Your task to perform on an android device: Open the stopwatch Image 0: 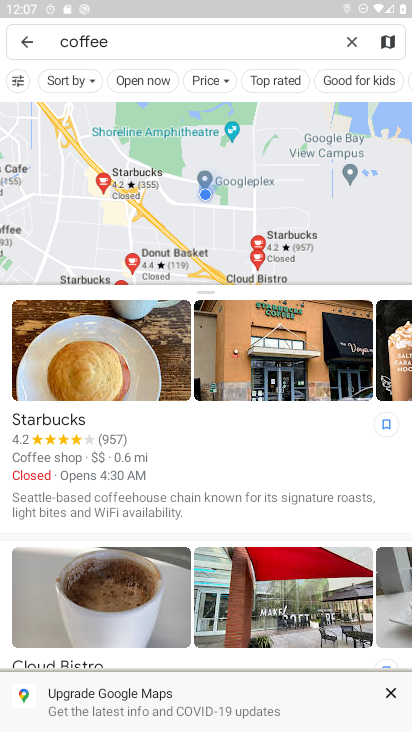
Step 0: press home button
Your task to perform on an android device: Open the stopwatch Image 1: 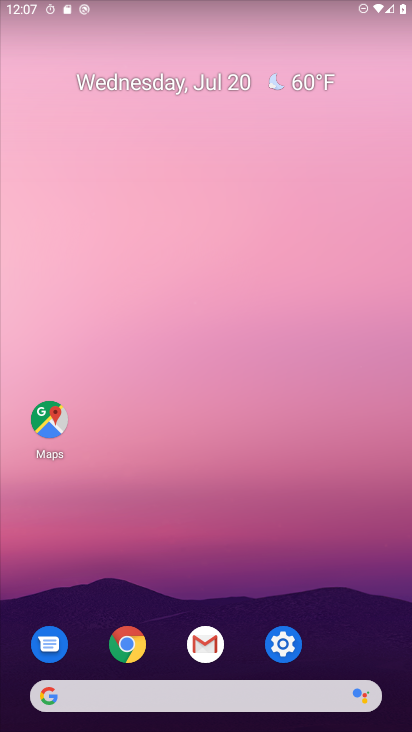
Step 1: drag from (286, 700) to (390, 217)
Your task to perform on an android device: Open the stopwatch Image 2: 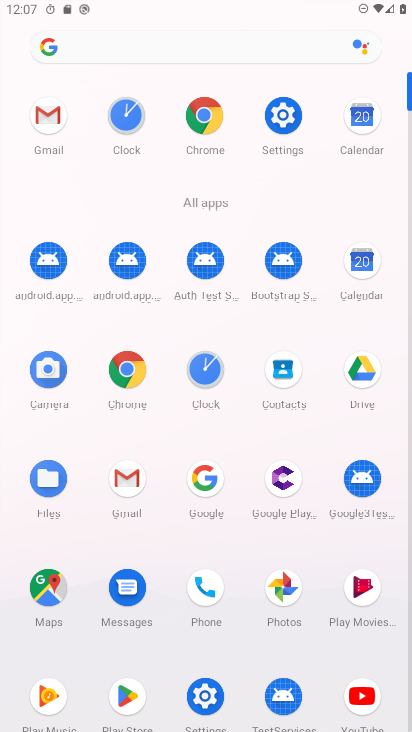
Step 2: click (204, 357)
Your task to perform on an android device: Open the stopwatch Image 3: 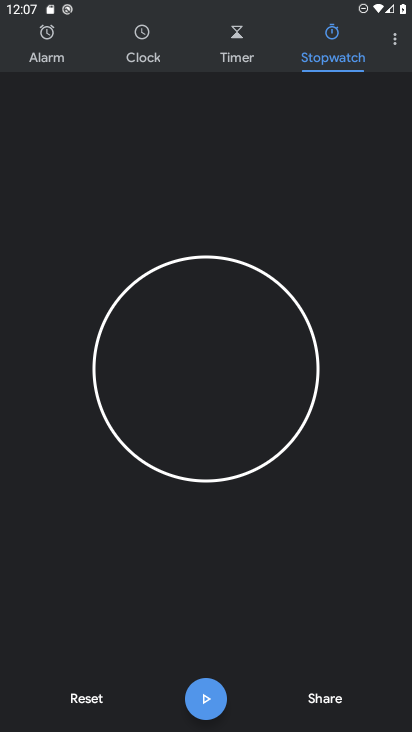
Step 3: click (330, 45)
Your task to perform on an android device: Open the stopwatch Image 4: 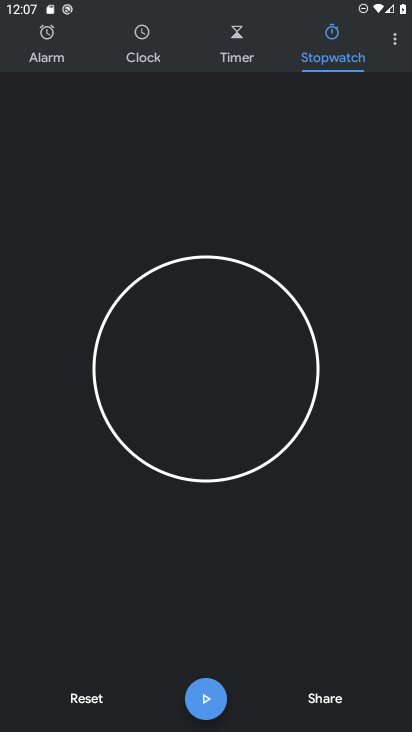
Step 4: click (209, 704)
Your task to perform on an android device: Open the stopwatch Image 5: 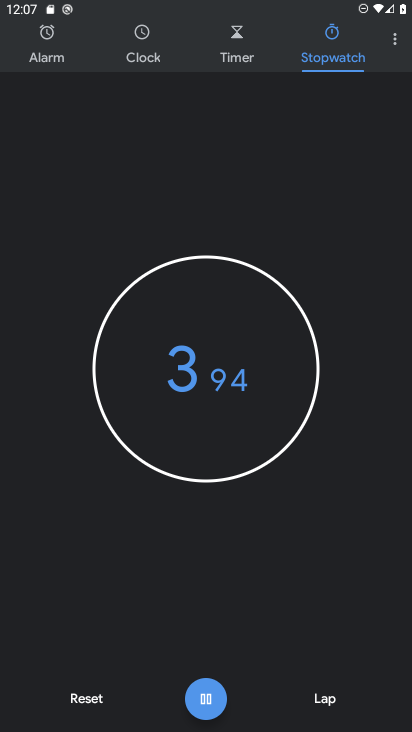
Step 5: click (207, 703)
Your task to perform on an android device: Open the stopwatch Image 6: 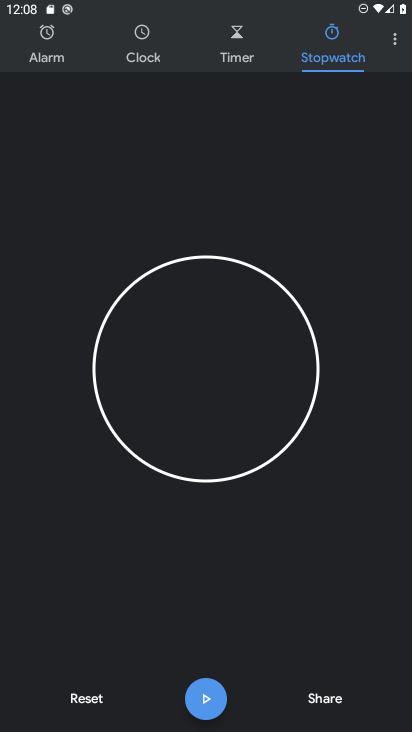
Step 6: task complete